Your task to perform on an android device: check the backup settings in the google photos Image 0: 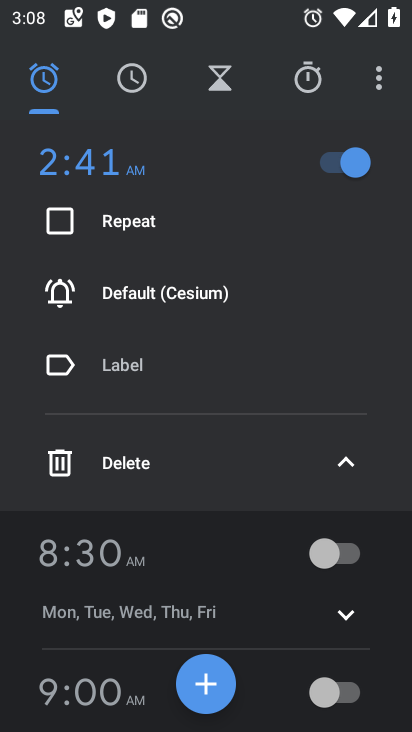
Step 0: press home button
Your task to perform on an android device: check the backup settings in the google photos Image 1: 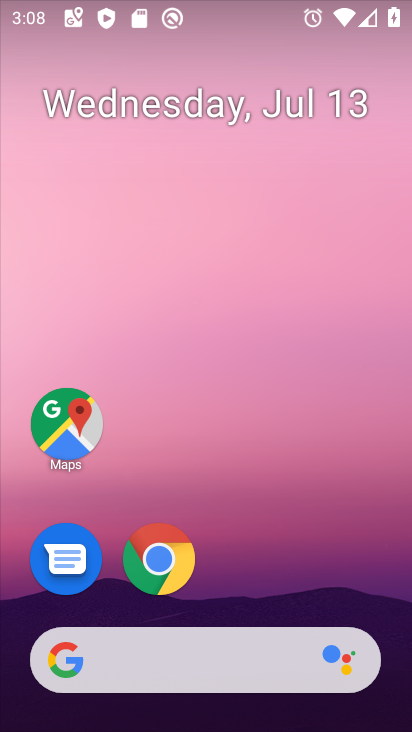
Step 1: drag from (362, 551) to (369, 187)
Your task to perform on an android device: check the backup settings in the google photos Image 2: 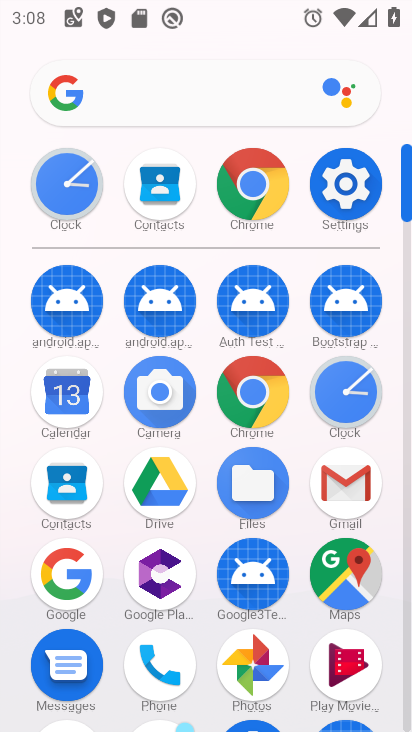
Step 2: click (254, 653)
Your task to perform on an android device: check the backup settings in the google photos Image 3: 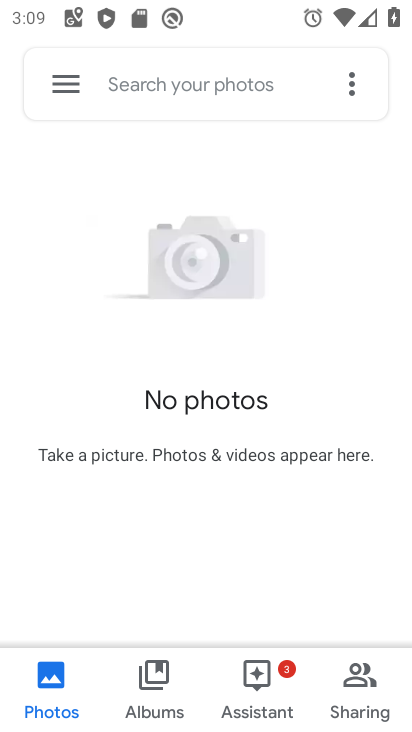
Step 3: click (63, 80)
Your task to perform on an android device: check the backup settings in the google photos Image 4: 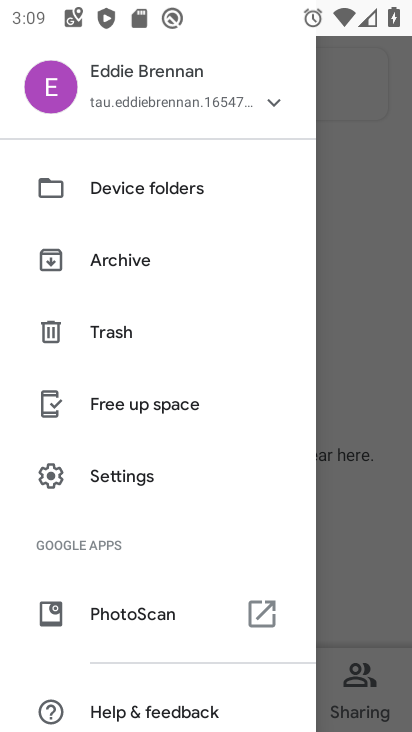
Step 4: drag from (246, 372) to (259, 279)
Your task to perform on an android device: check the backup settings in the google photos Image 5: 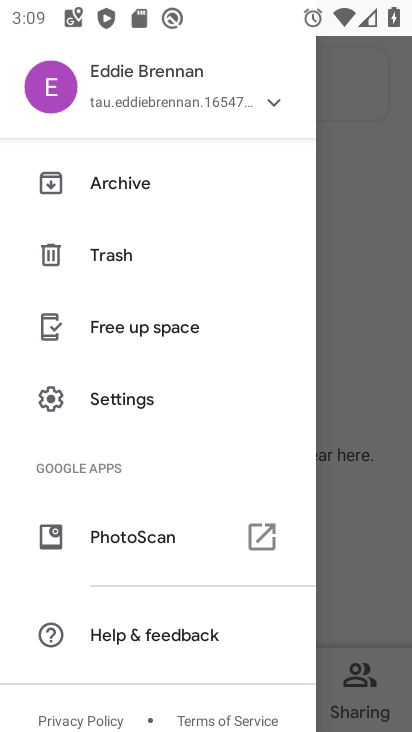
Step 5: drag from (239, 412) to (239, 224)
Your task to perform on an android device: check the backup settings in the google photos Image 6: 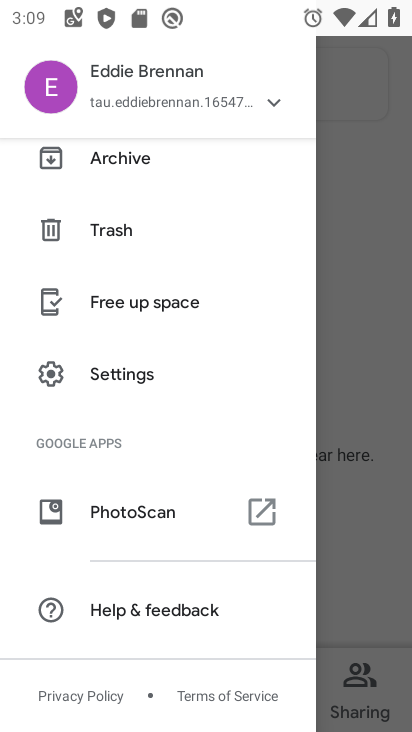
Step 6: click (189, 379)
Your task to perform on an android device: check the backup settings in the google photos Image 7: 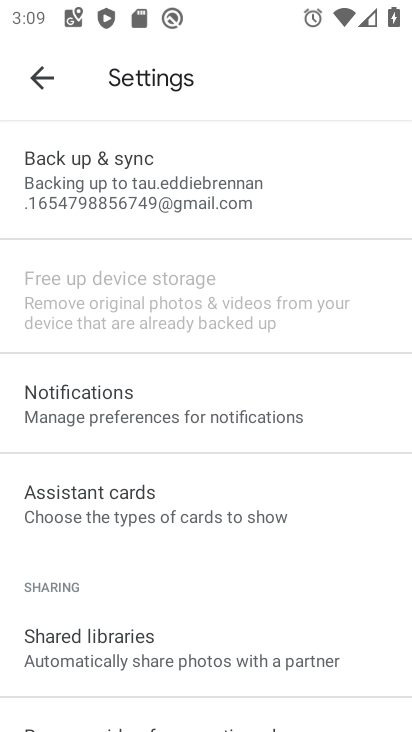
Step 7: click (216, 187)
Your task to perform on an android device: check the backup settings in the google photos Image 8: 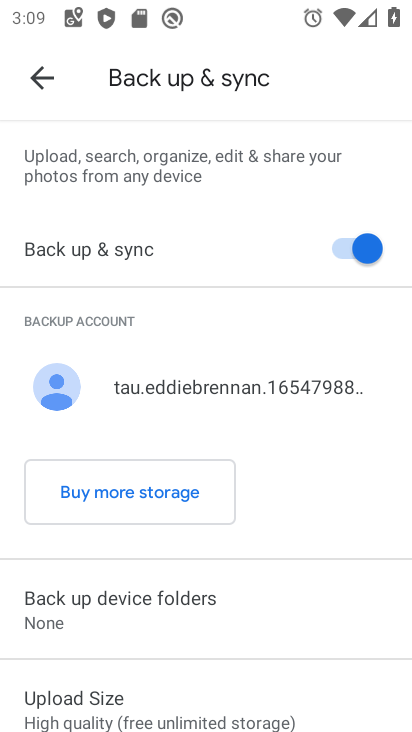
Step 8: task complete